Your task to perform on an android device: refresh tabs in the chrome app Image 0: 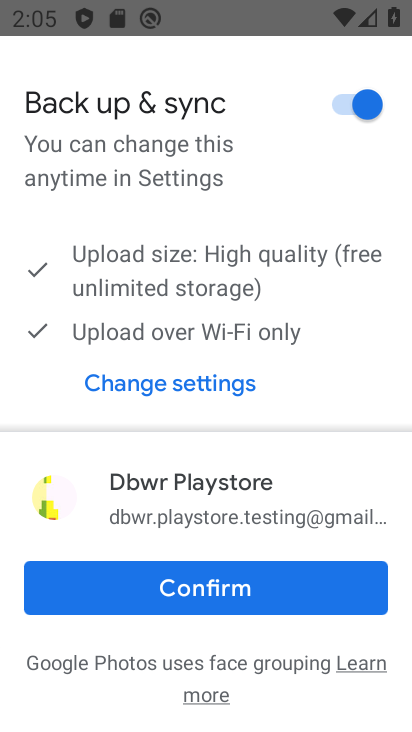
Step 0: press home button
Your task to perform on an android device: refresh tabs in the chrome app Image 1: 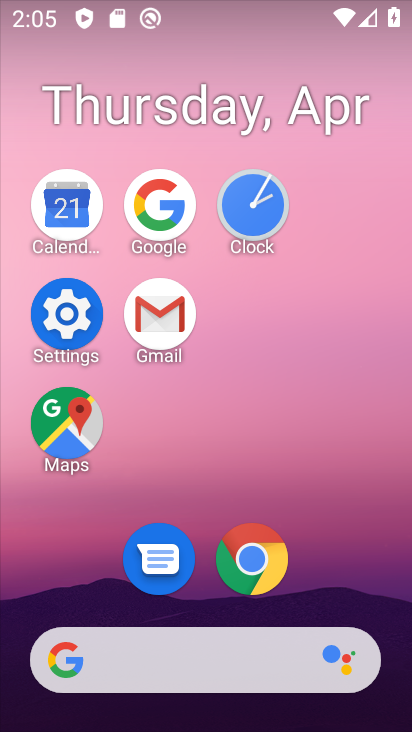
Step 1: click (252, 554)
Your task to perform on an android device: refresh tabs in the chrome app Image 2: 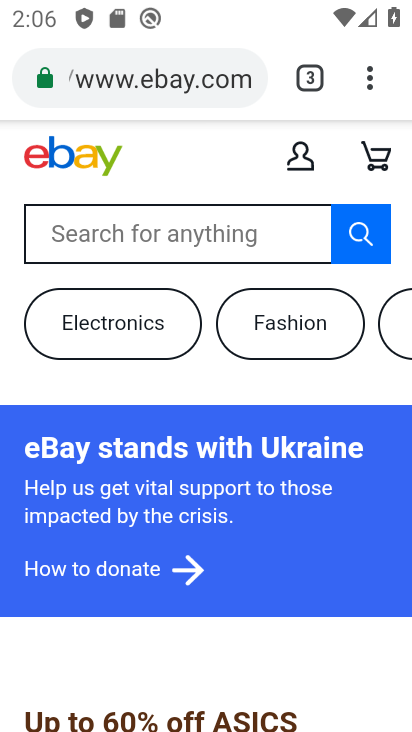
Step 2: click (376, 77)
Your task to perform on an android device: refresh tabs in the chrome app Image 3: 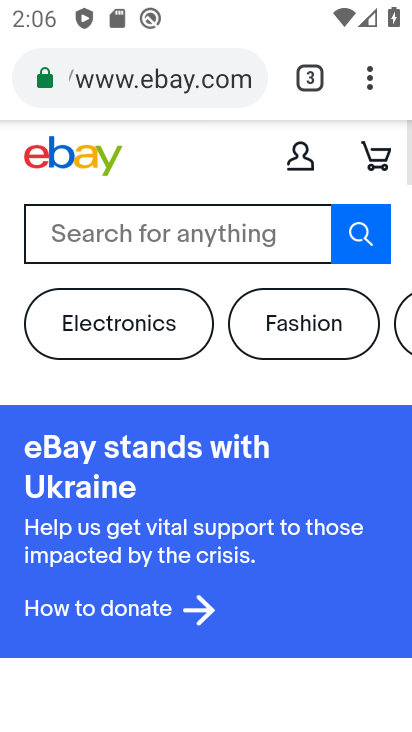
Step 3: click (370, 78)
Your task to perform on an android device: refresh tabs in the chrome app Image 4: 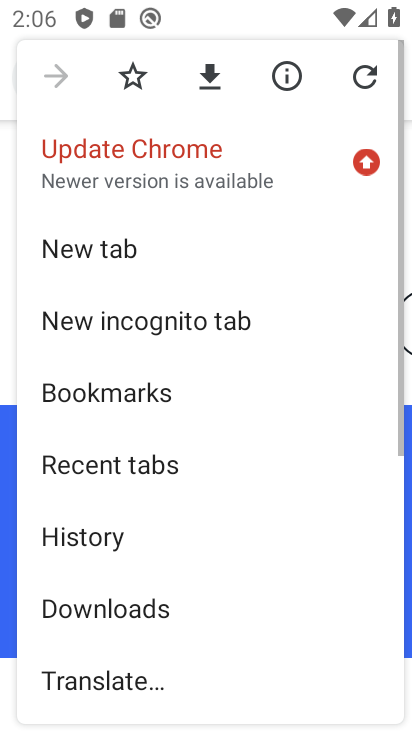
Step 4: click (370, 78)
Your task to perform on an android device: refresh tabs in the chrome app Image 5: 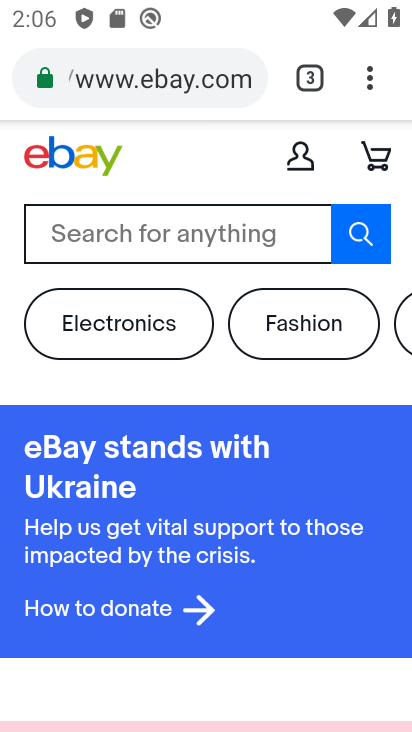
Step 5: task complete